Your task to perform on an android device: Go to Google Image 0: 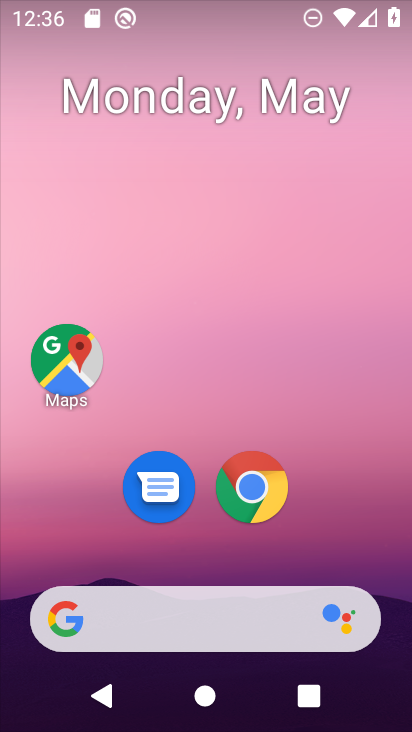
Step 0: drag from (352, 510) to (320, 0)
Your task to perform on an android device: Go to Google Image 1: 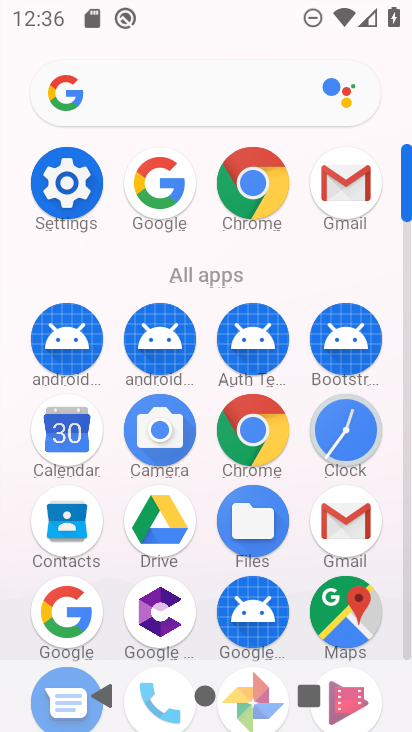
Step 1: click (152, 181)
Your task to perform on an android device: Go to Google Image 2: 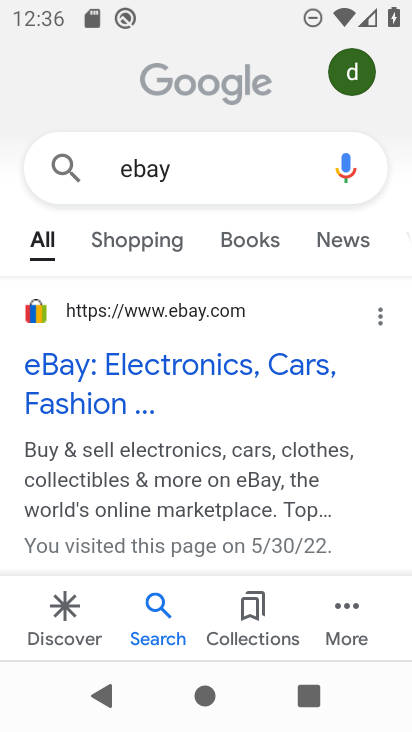
Step 2: task complete